Your task to perform on an android device: toggle show notifications on the lock screen Image 0: 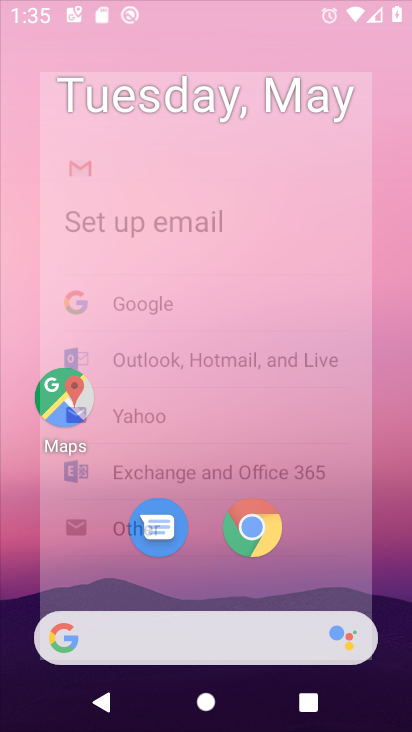
Step 0: drag from (263, 702) to (343, 110)
Your task to perform on an android device: toggle show notifications on the lock screen Image 1: 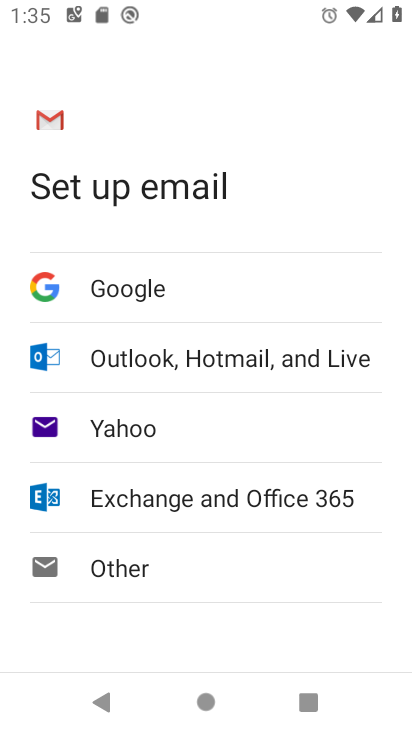
Step 1: press home button
Your task to perform on an android device: toggle show notifications on the lock screen Image 2: 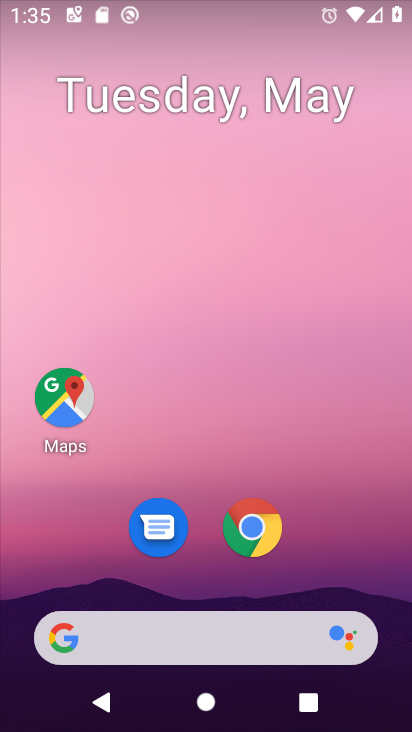
Step 2: drag from (257, 699) to (303, 13)
Your task to perform on an android device: toggle show notifications on the lock screen Image 3: 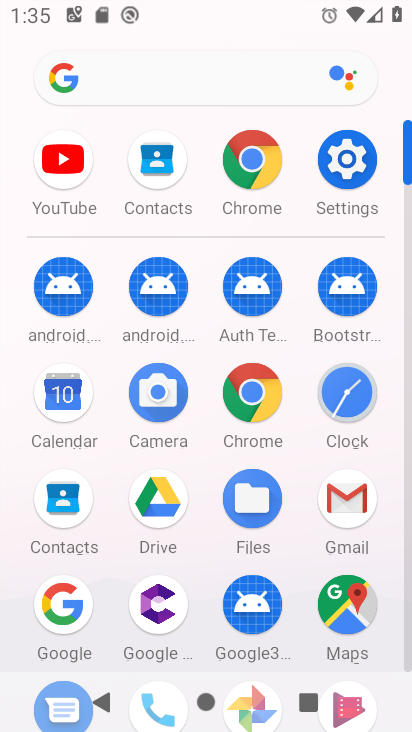
Step 3: click (349, 170)
Your task to perform on an android device: toggle show notifications on the lock screen Image 4: 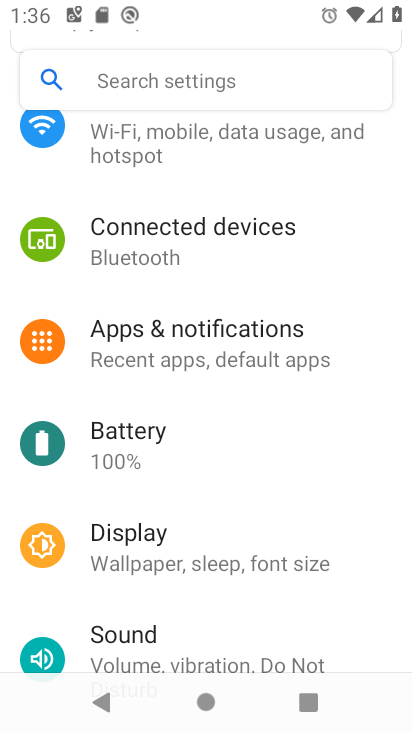
Step 4: click (198, 330)
Your task to perform on an android device: toggle show notifications on the lock screen Image 5: 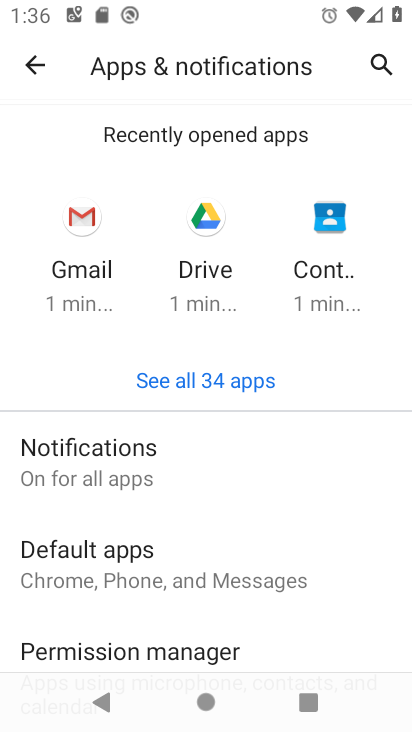
Step 5: click (137, 470)
Your task to perform on an android device: toggle show notifications on the lock screen Image 6: 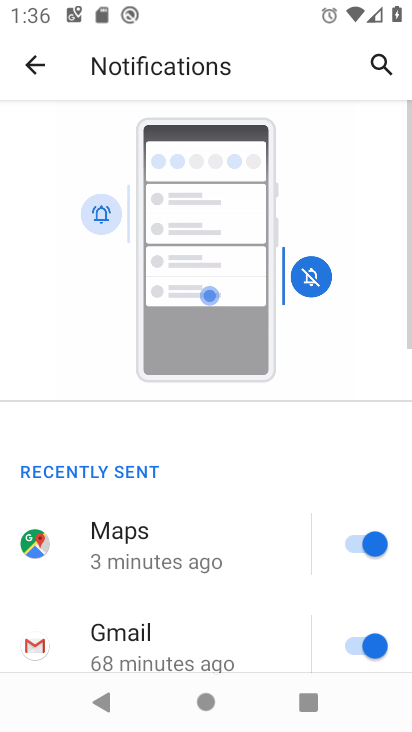
Step 6: drag from (210, 549) to (232, 14)
Your task to perform on an android device: toggle show notifications on the lock screen Image 7: 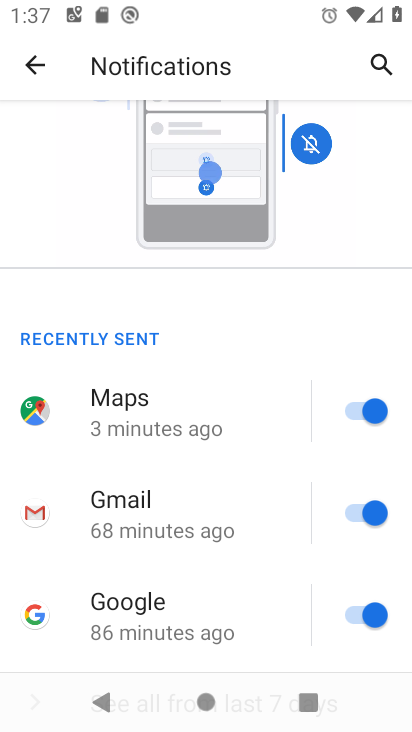
Step 7: drag from (168, 582) to (300, 23)
Your task to perform on an android device: toggle show notifications on the lock screen Image 8: 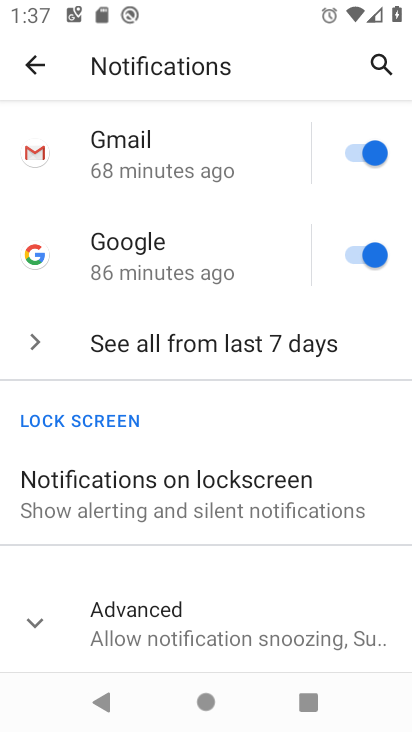
Step 8: click (209, 514)
Your task to perform on an android device: toggle show notifications on the lock screen Image 9: 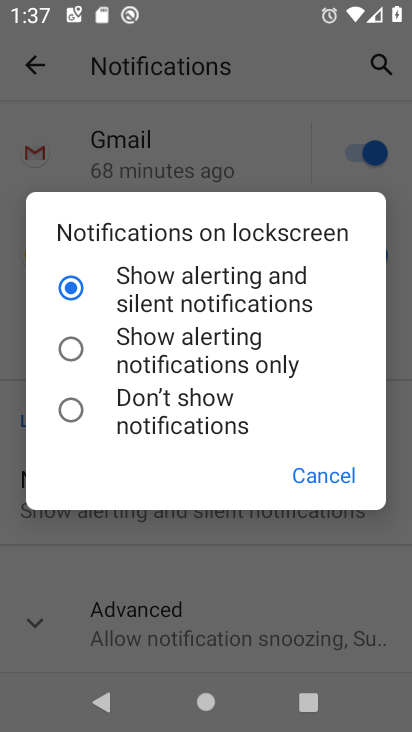
Step 9: task complete